Your task to perform on an android device: turn on bluetooth scan Image 0: 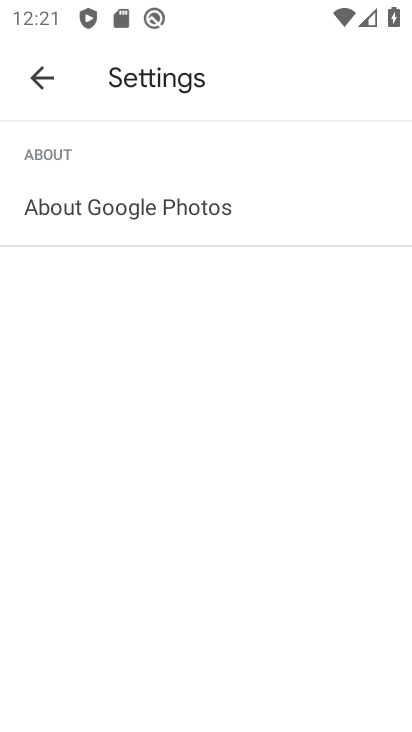
Step 0: press home button
Your task to perform on an android device: turn on bluetooth scan Image 1: 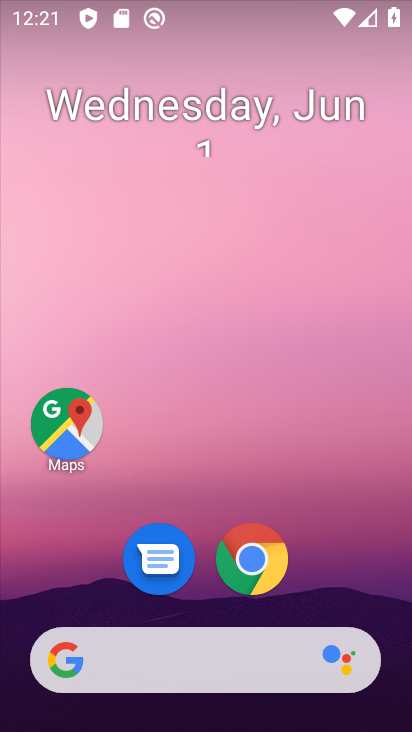
Step 1: drag from (321, 587) to (339, 129)
Your task to perform on an android device: turn on bluetooth scan Image 2: 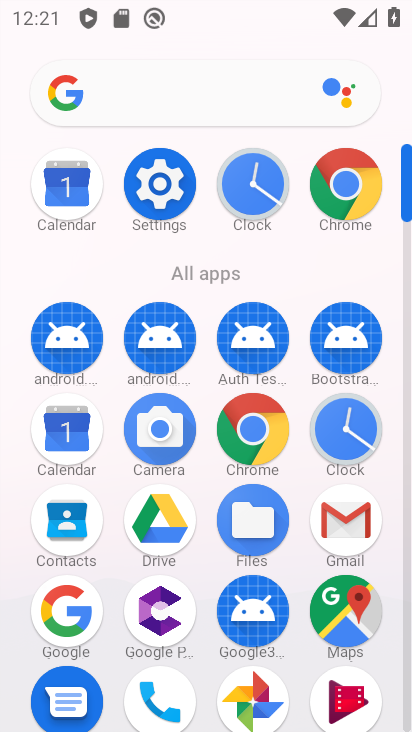
Step 2: click (142, 176)
Your task to perform on an android device: turn on bluetooth scan Image 3: 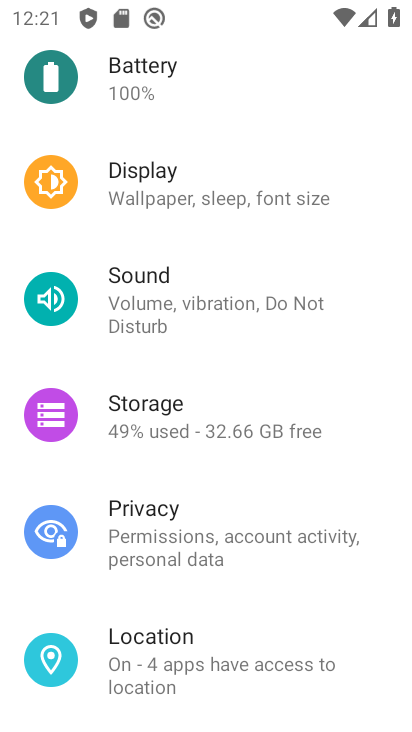
Step 3: drag from (227, 96) to (194, 547)
Your task to perform on an android device: turn on bluetooth scan Image 4: 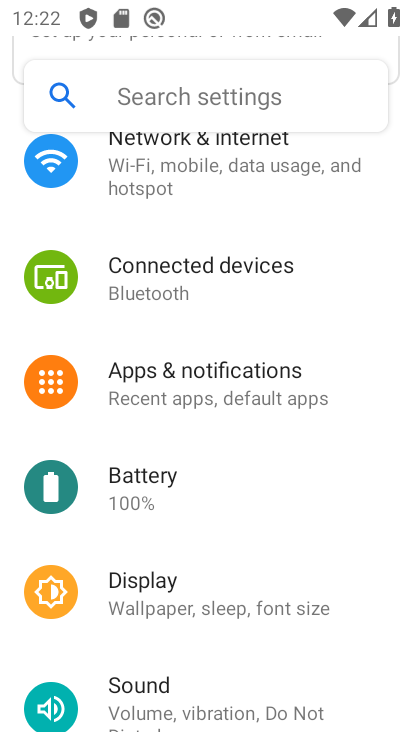
Step 4: click (257, 88)
Your task to perform on an android device: turn on bluetooth scan Image 5: 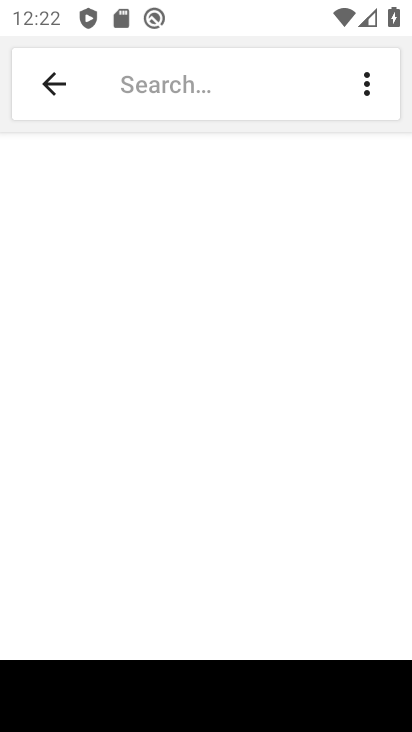
Step 5: type " bluetooth scan"
Your task to perform on an android device: turn on bluetooth scan Image 6: 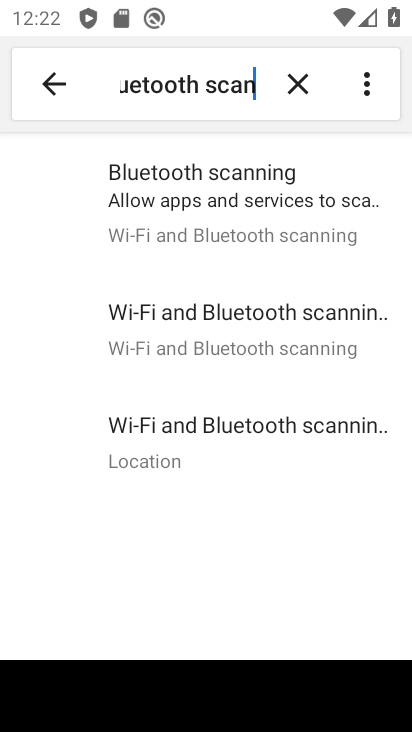
Step 6: click (187, 187)
Your task to perform on an android device: turn on bluetooth scan Image 7: 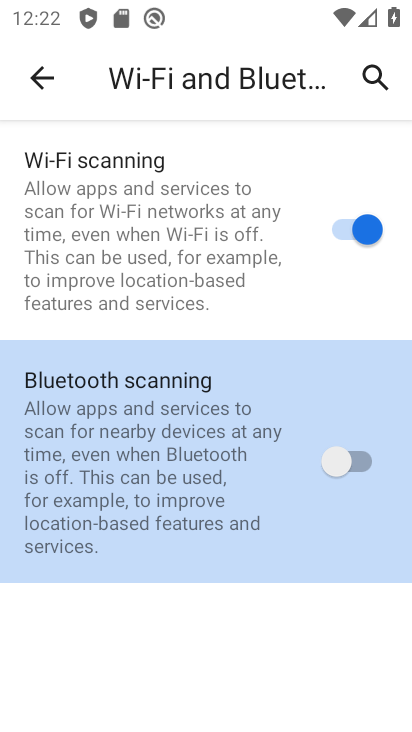
Step 7: click (369, 455)
Your task to perform on an android device: turn on bluetooth scan Image 8: 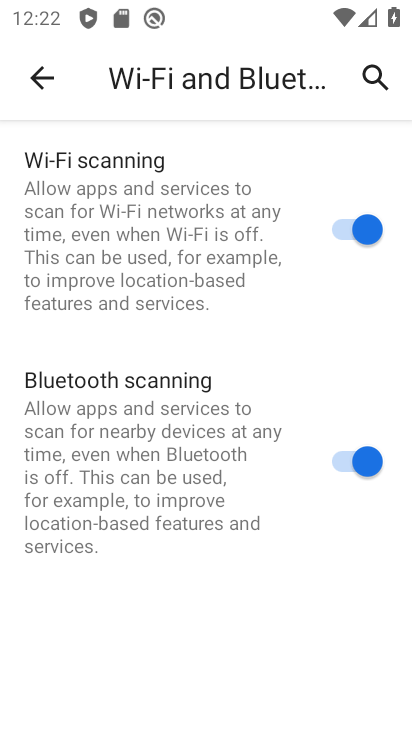
Step 8: task complete